Your task to perform on an android device: Check the news Image 0: 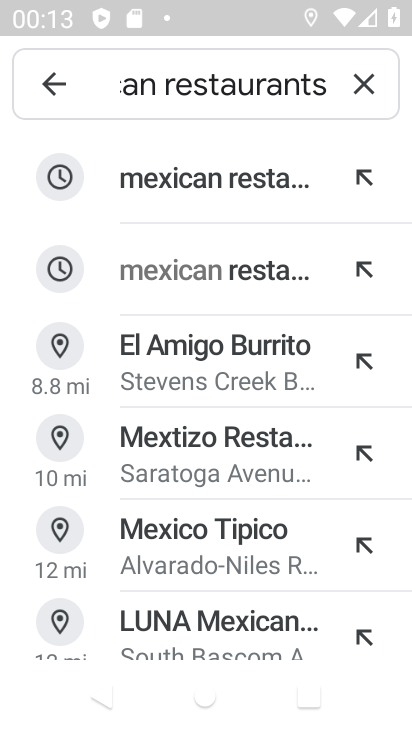
Step 0: press home button
Your task to perform on an android device: Check the news Image 1: 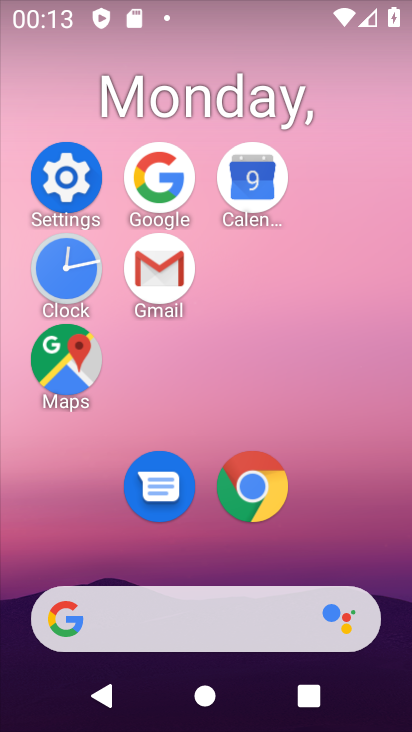
Step 1: click (159, 188)
Your task to perform on an android device: Check the news Image 2: 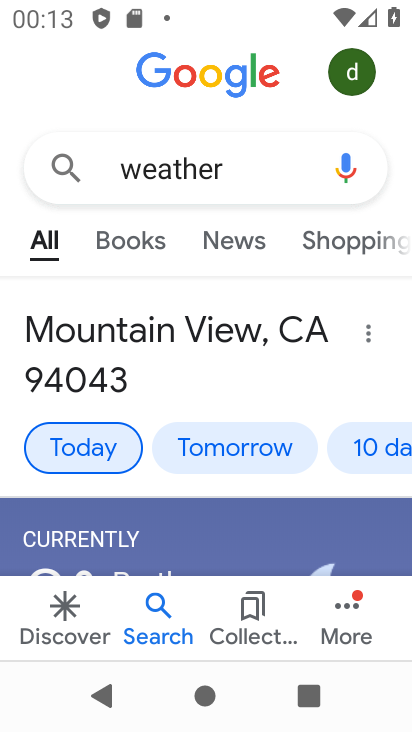
Step 2: click (246, 172)
Your task to perform on an android device: Check the news Image 3: 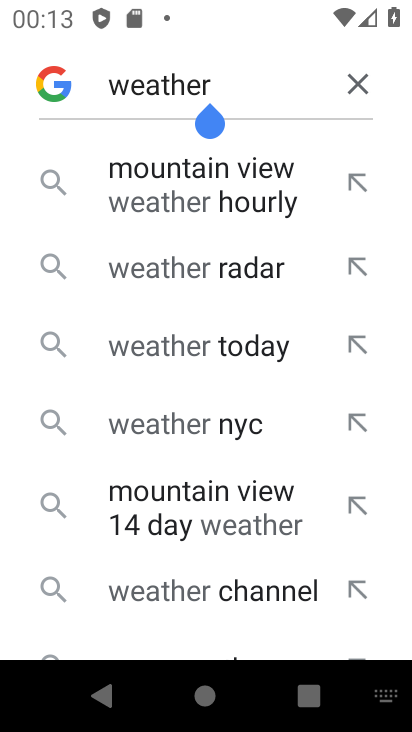
Step 3: click (346, 89)
Your task to perform on an android device: Check the news Image 4: 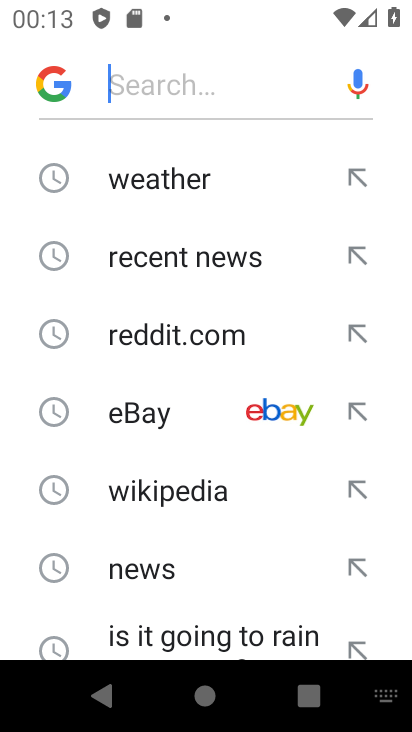
Step 4: click (197, 271)
Your task to perform on an android device: Check the news Image 5: 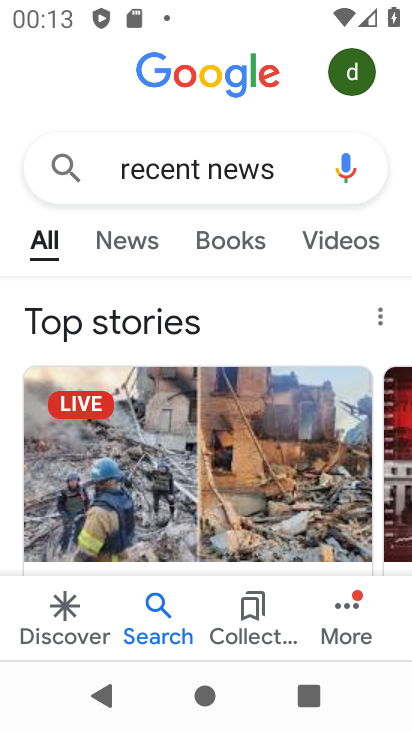
Step 5: task complete